Your task to perform on an android device: set default search engine in the chrome app Image 0: 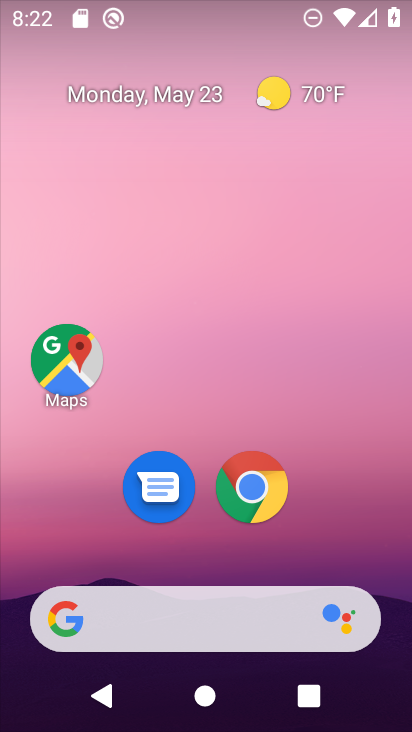
Step 0: drag from (225, 583) to (234, 284)
Your task to perform on an android device: set default search engine in the chrome app Image 1: 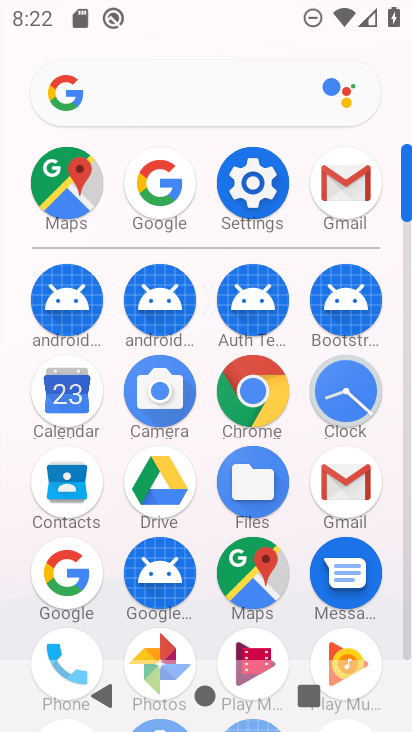
Step 1: click (248, 381)
Your task to perform on an android device: set default search engine in the chrome app Image 2: 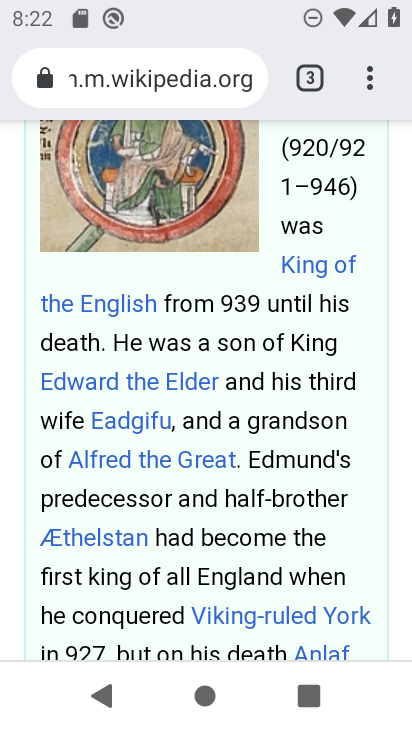
Step 2: click (372, 75)
Your task to perform on an android device: set default search engine in the chrome app Image 3: 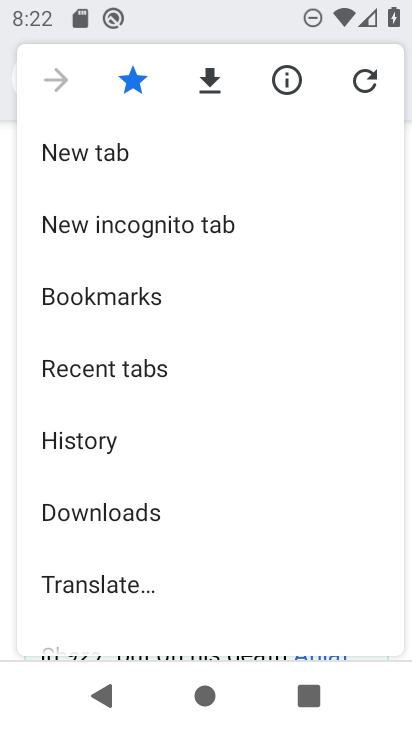
Step 3: drag from (125, 576) to (155, 321)
Your task to perform on an android device: set default search engine in the chrome app Image 4: 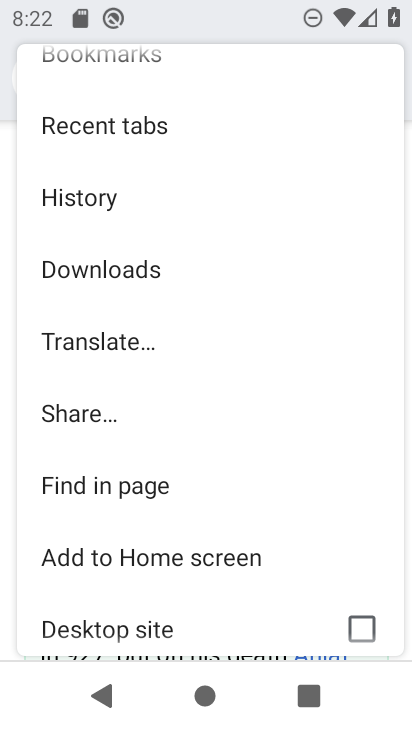
Step 4: drag from (148, 615) to (203, 272)
Your task to perform on an android device: set default search engine in the chrome app Image 5: 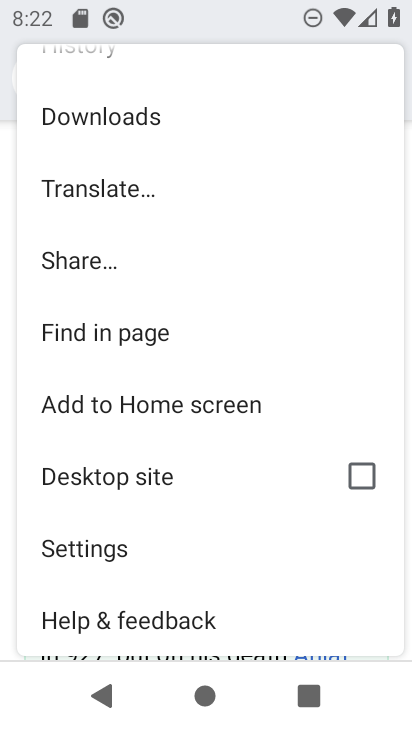
Step 5: click (108, 547)
Your task to perform on an android device: set default search engine in the chrome app Image 6: 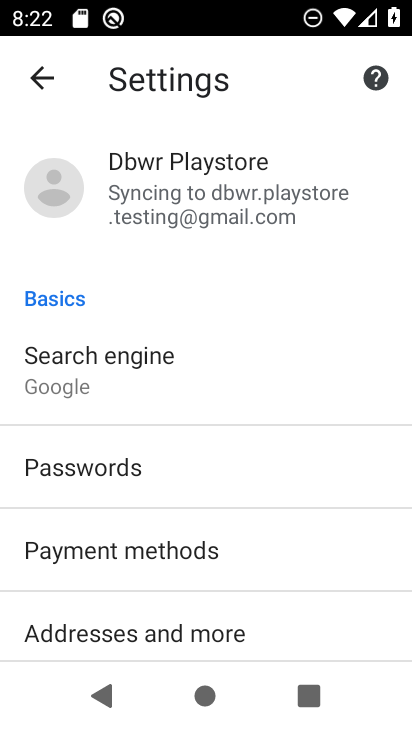
Step 6: drag from (209, 499) to (215, 50)
Your task to perform on an android device: set default search engine in the chrome app Image 7: 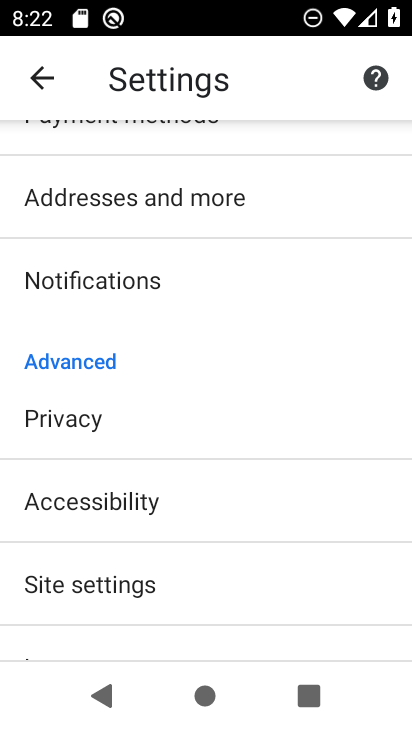
Step 7: drag from (221, 229) to (234, 543)
Your task to perform on an android device: set default search engine in the chrome app Image 8: 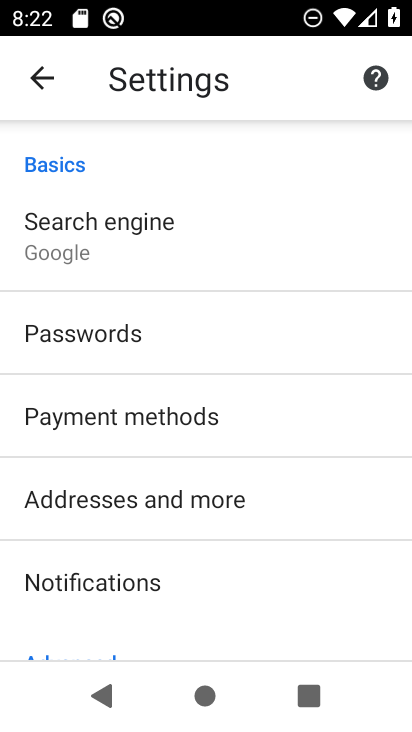
Step 8: click (201, 226)
Your task to perform on an android device: set default search engine in the chrome app Image 9: 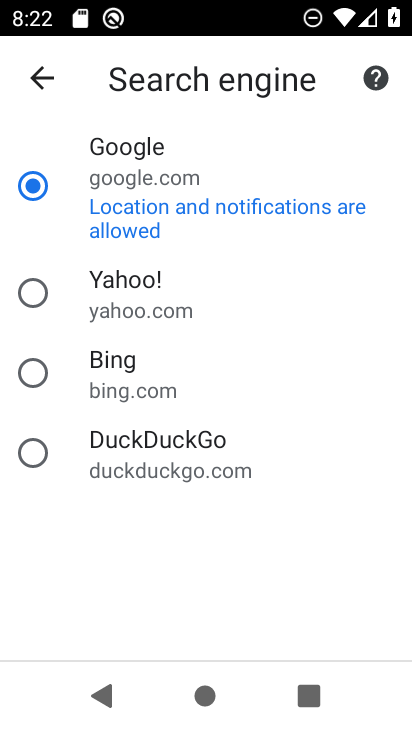
Step 9: task complete